Your task to perform on an android device: Go to accessibility settings Image 0: 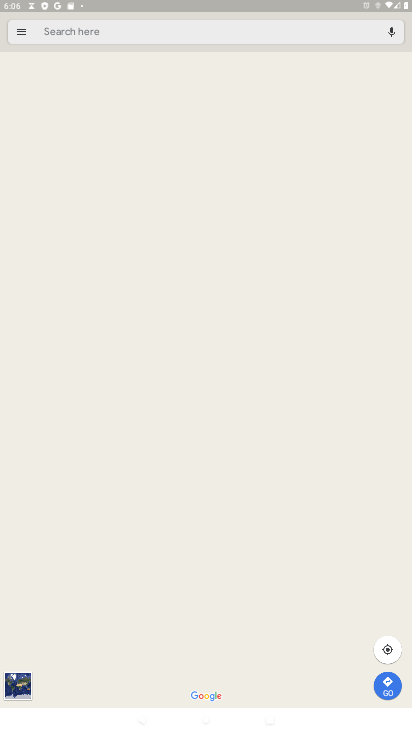
Step 0: press home button
Your task to perform on an android device: Go to accessibility settings Image 1: 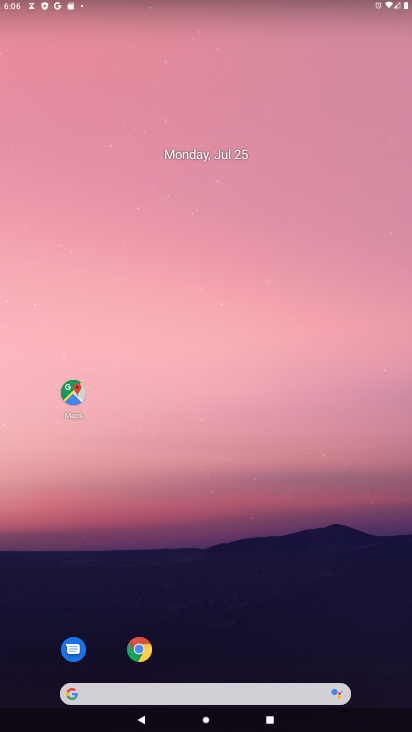
Step 1: drag from (285, 612) to (354, 33)
Your task to perform on an android device: Go to accessibility settings Image 2: 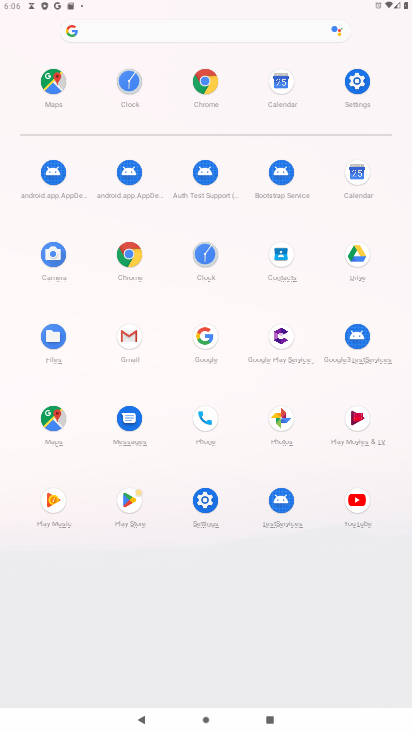
Step 2: click (365, 79)
Your task to perform on an android device: Go to accessibility settings Image 3: 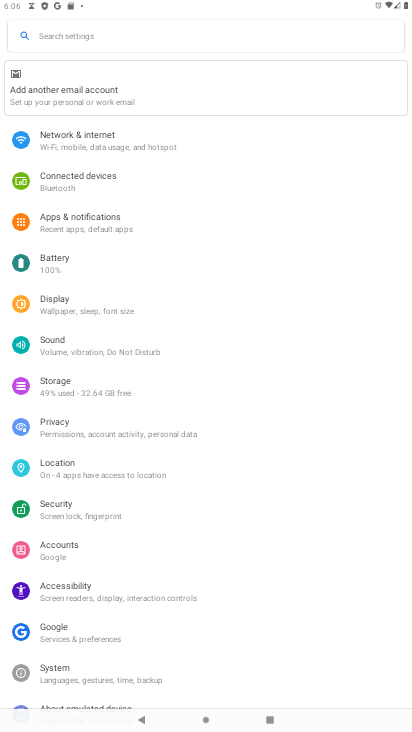
Step 3: click (100, 592)
Your task to perform on an android device: Go to accessibility settings Image 4: 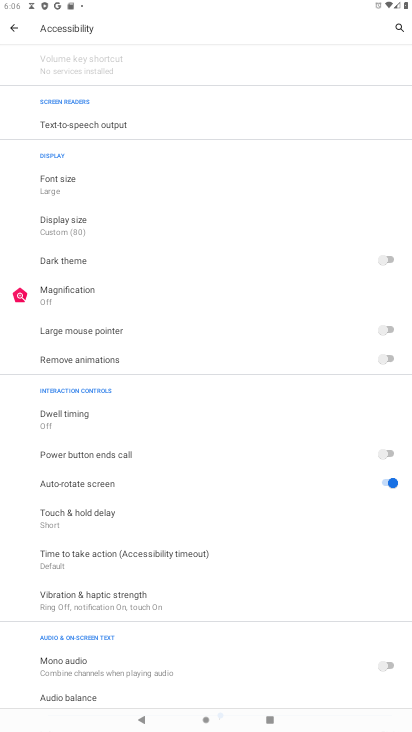
Step 4: task complete